Your task to perform on an android device: turn off data saver in the chrome app Image 0: 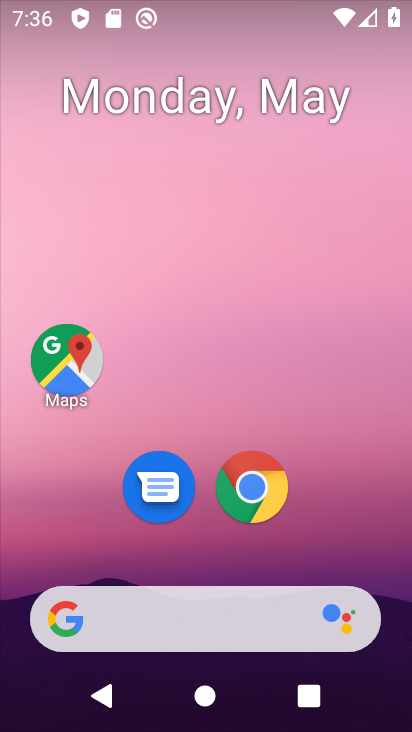
Step 0: click (252, 474)
Your task to perform on an android device: turn off data saver in the chrome app Image 1: 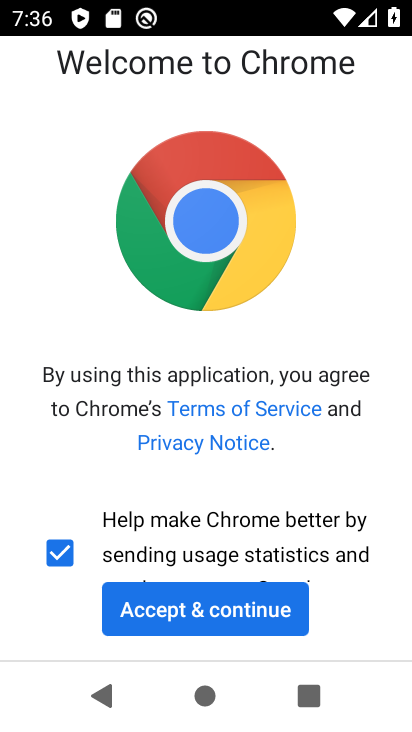
Step 1: click (233, 626)
Your task to perform on an android device: turn off data saver in the chrome app Image 2: 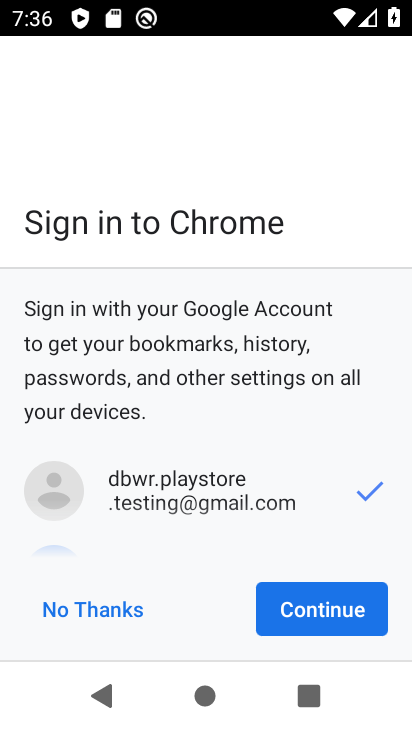
Step 2: click (322, 608)
Your task to perform on an android device: turn off data saver in the chrome app Image 3: 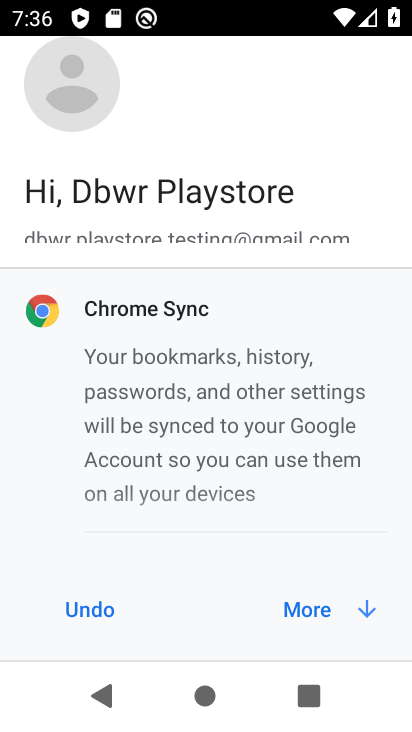
Step 3: click (322, 608)
Your task to perform on an android device: turn off data saver in the chrome app Image 4: 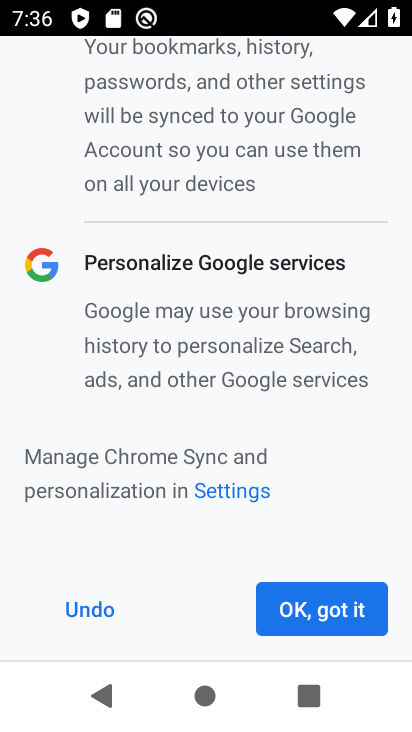
Step 4: click (322, 608)
Your task to perform on an android device: turn off data saver in the chrome app Image 5: 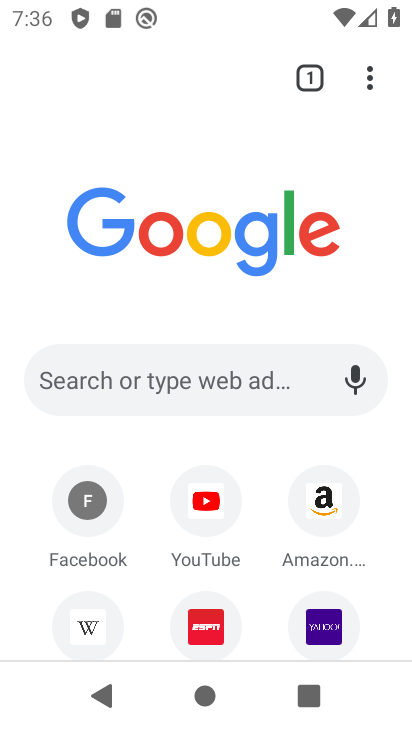
Step 5: click (368, 77)
Your task to perform on an android device: turn off data saver in the chrome app Image 6: 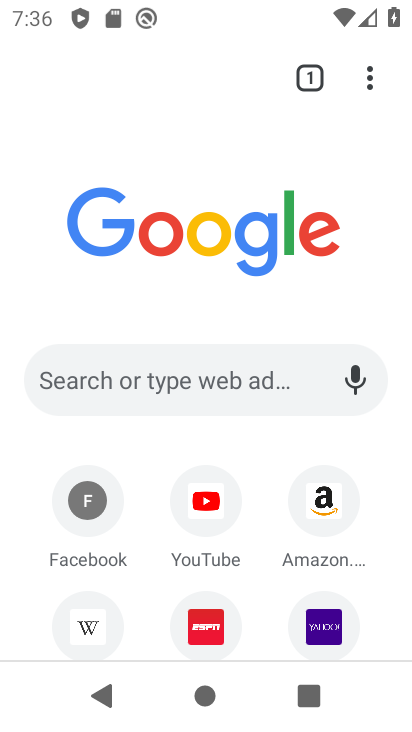
Step 6: click (368, 76)
Your task to perform on an android device: turn off data saver in the chrome app Image 7: 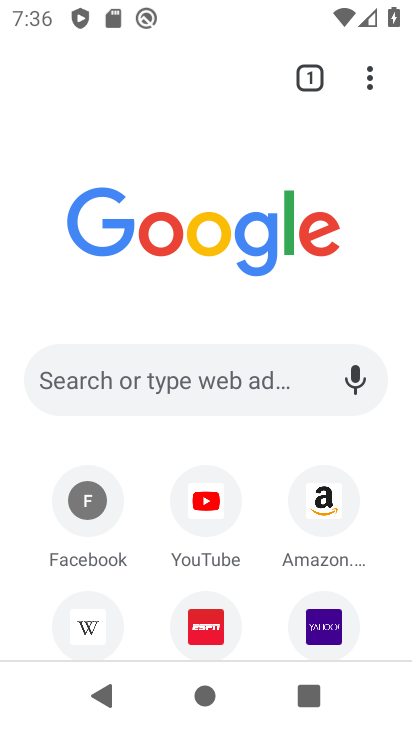
Step 7: click (368, 75)
Your task to perform on an android device: turn off data saver in the chrome app Image 8: 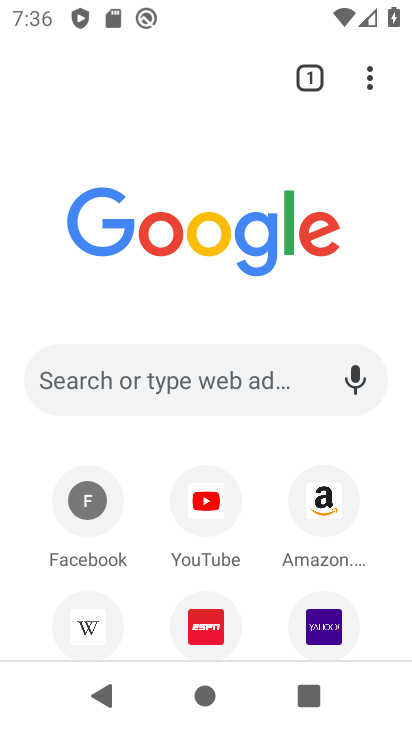
Step 8: click (368, 75)
Your task to perform on an android device: turn off data saver in the chrome app Image 9: 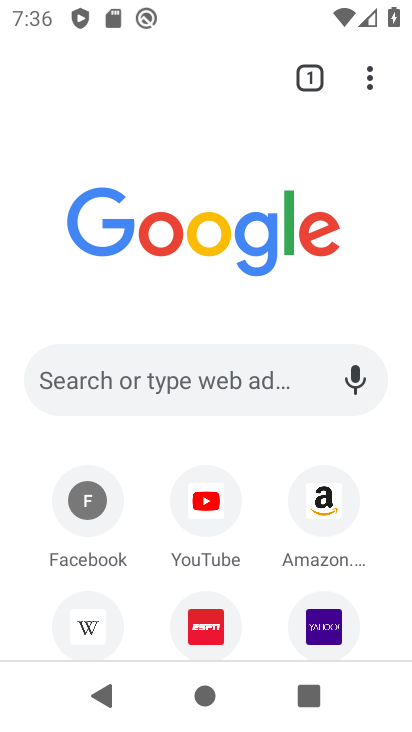
Step 9: click (367, 86)
Your task to perform on an android device: turn off data saver in the chrome app Image 10: 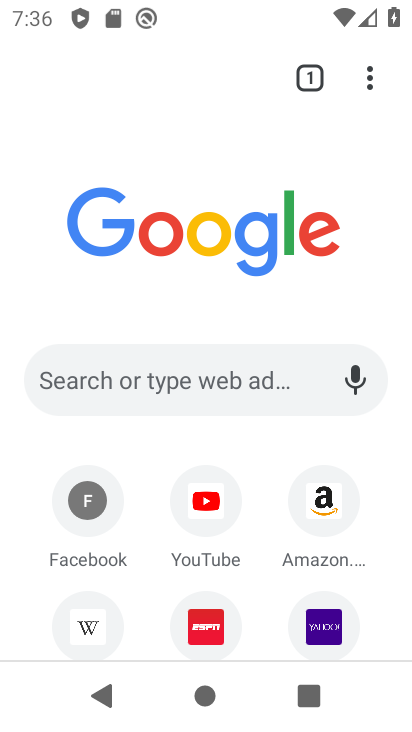
Step 10: click (367, 86)
Your task to perform on an android device: turn off data saver in the chrome app Image 11: 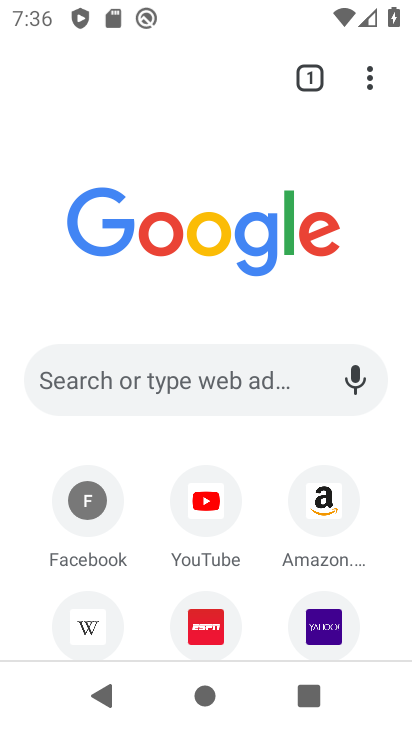
Step 11: click (366, 86)
Your task to perform on an android device: turn off data saver in the chrome app Image 12: 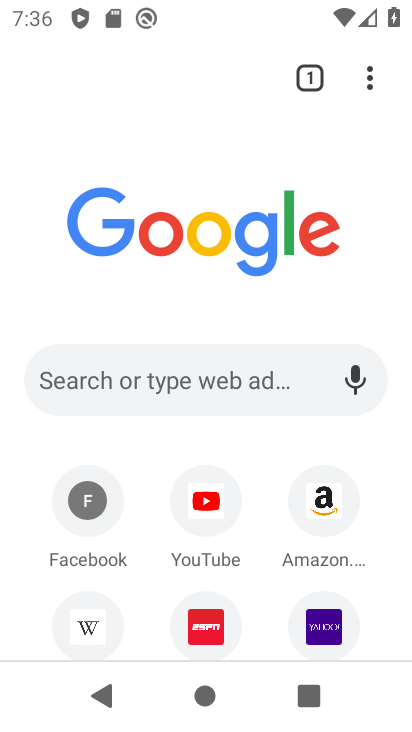
Step 12: click (351, 71)
Your task to perform on an android device: turn off data saver in the chrome app Image 13: 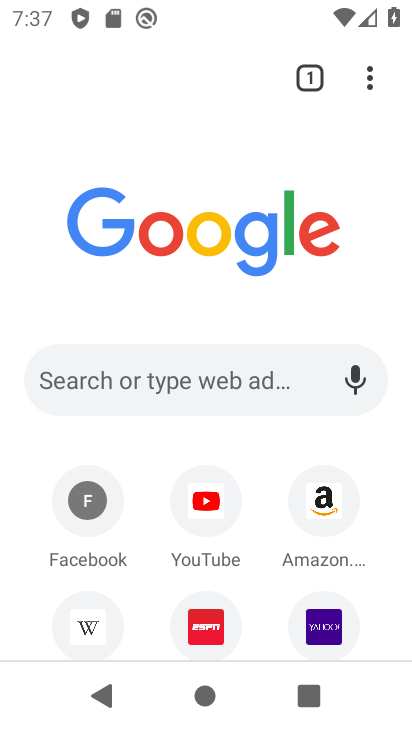
Step 13: click (365, 84)
Your task to perform on an android device: turn off data saver in the chrome app Image 14: 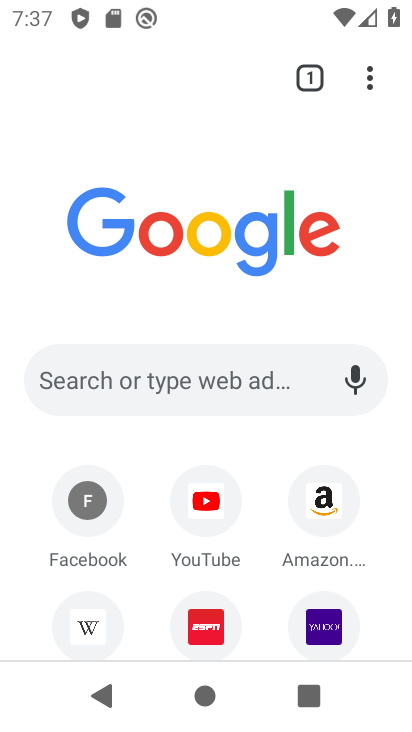
Step 14: click (377, 87)
Your task to perform on an android device: turn off data saver in the chrome app Image 15: 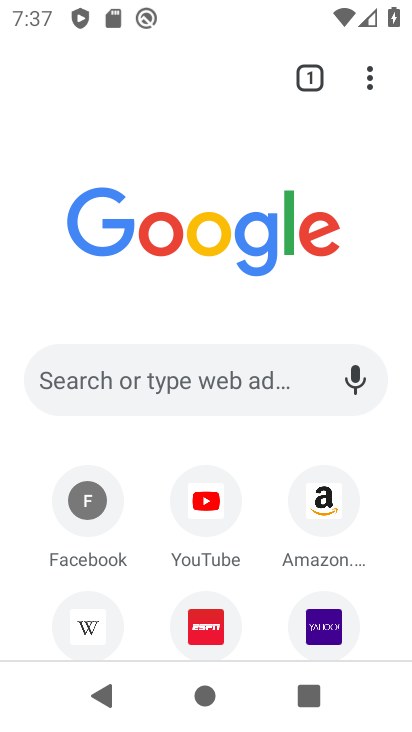
Step 15: click (377, 72)
Your task to perform on an android device: turn off data saver in the chrome app Image 16: 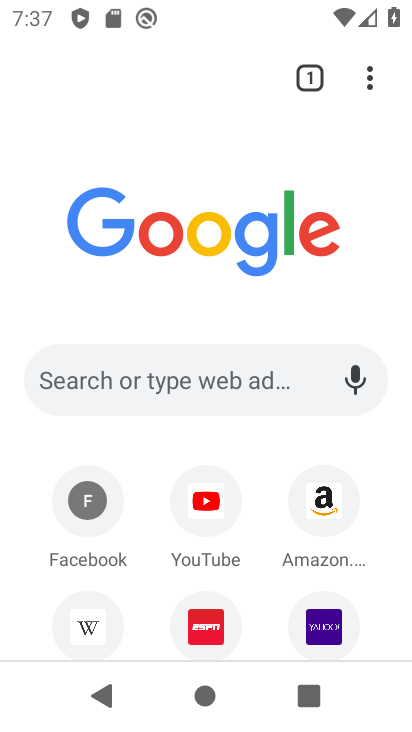
Step 16: click (369, 84)
Your task to perform on an android device: turn off data saver in the chrome app Image 17: 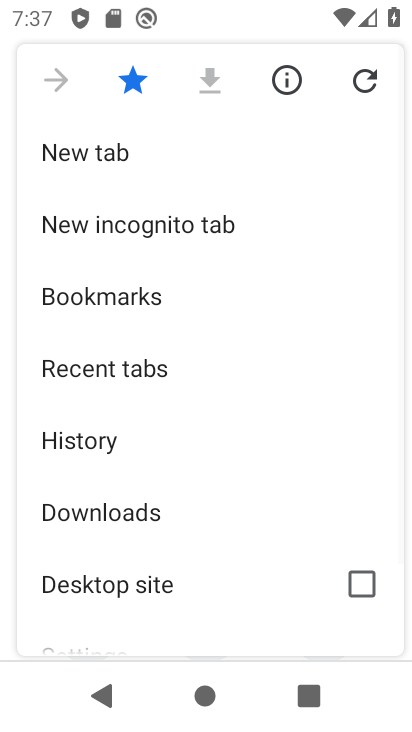
Step 17: drag from (130, 604) to (112, 180)
Your task to perform on an android device: turn off data saver in the chrome app Image 18: 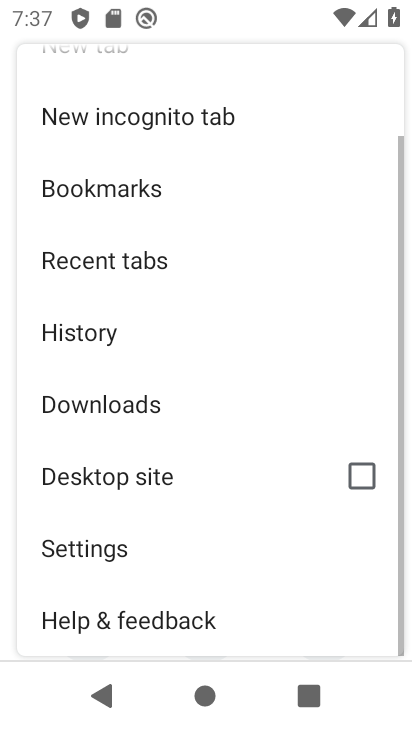
Step 18: click (56, 559)
Your task to perform on an android device: turn off data saver in the chrome app Image 19: 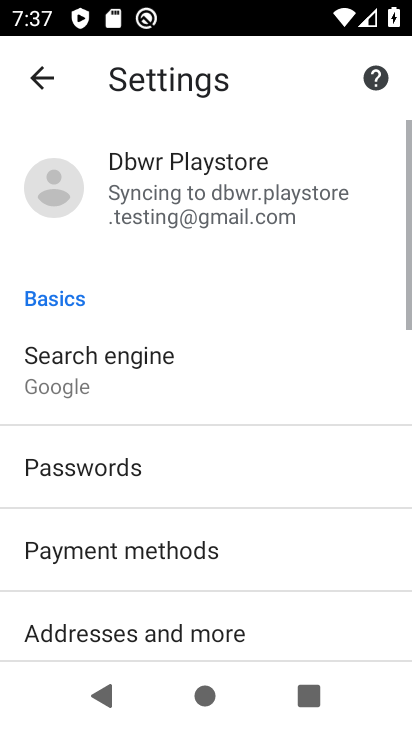
Step 19: drag from (105, 628) to (152, 148)
Your task to perform on an android device: turn off data saver in the chrome app Image 20: 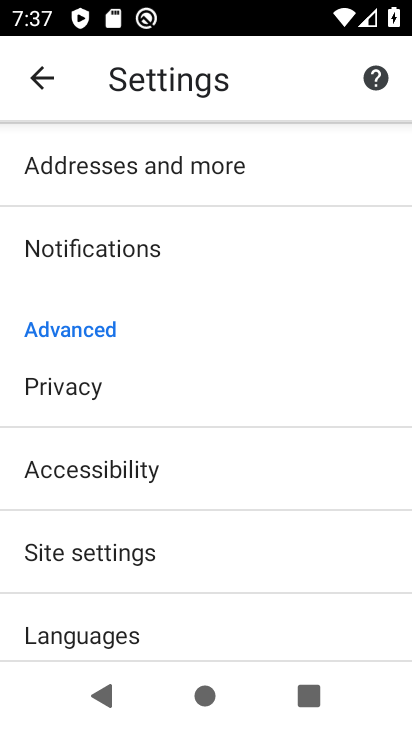
Step 20: click (82, 548)
Your task to perform on an android device: turn off data saver in the chrome app Image 21: 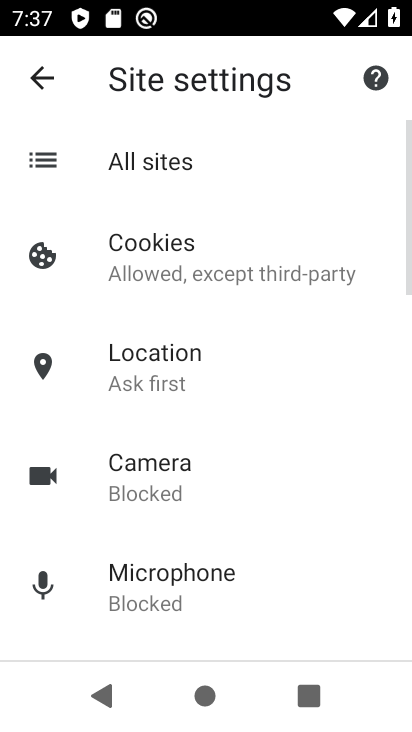
Step 21: click (51, 67)
Your task to perform on an android device: turn off data saver in the chrome app Image 22: 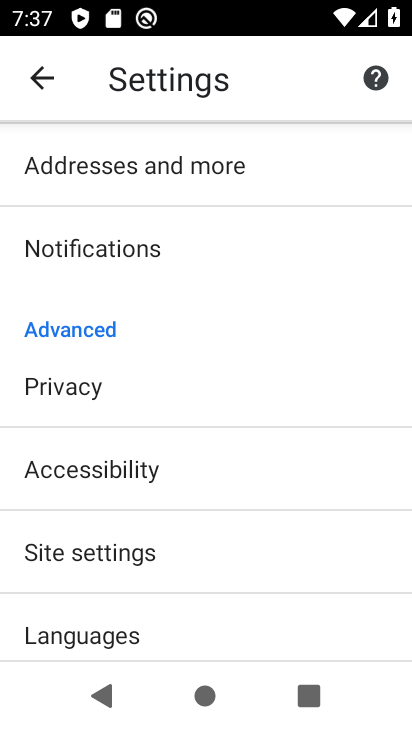
Step 22: drag from (99, 616) to (83, 256)
Your task to perform on an android device: turn off data saver in the chrome app Image 23: 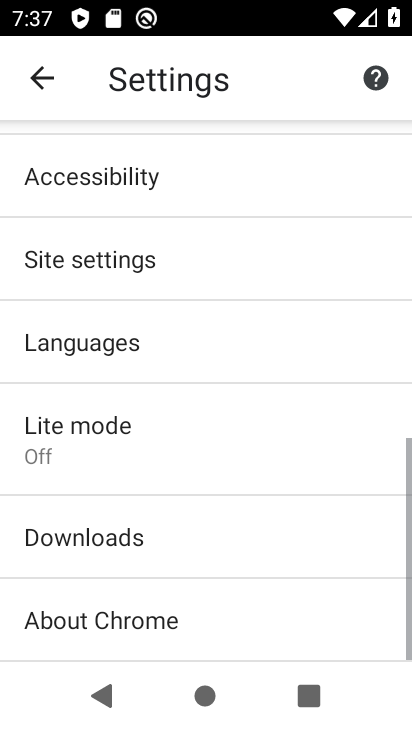
Step 23: click (83, 415)
Your task to perform on an android device: turn off data saver in the chrome app Image 24: 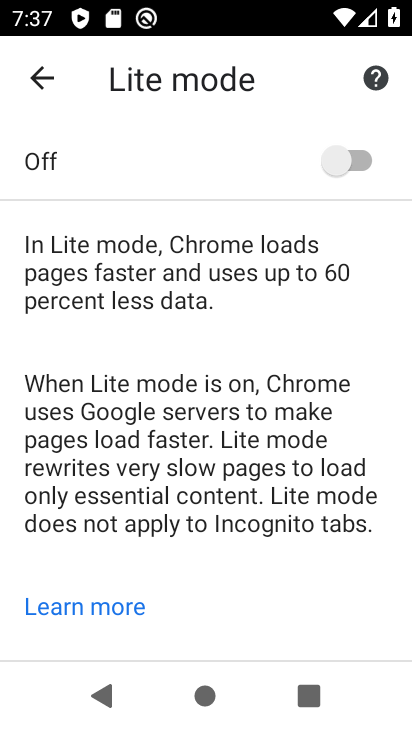
Step 24: task complete